Your task to perform on an android device: Open accessibility settings Image 0: 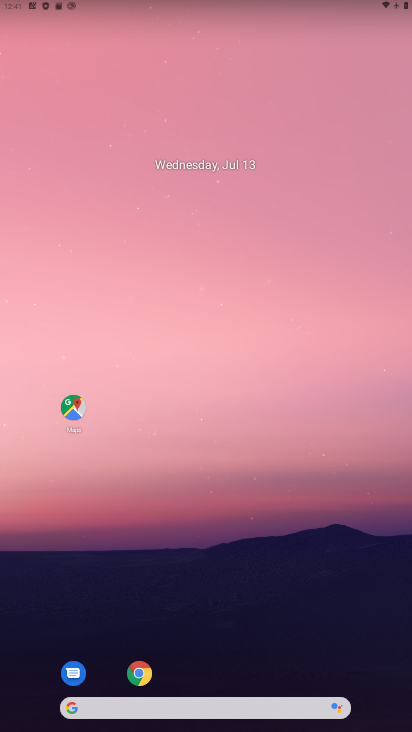
Step 0: drag from (257, 628) to (286, 148)
Your task to perform on an android device: Open accessibility settings Image 1: 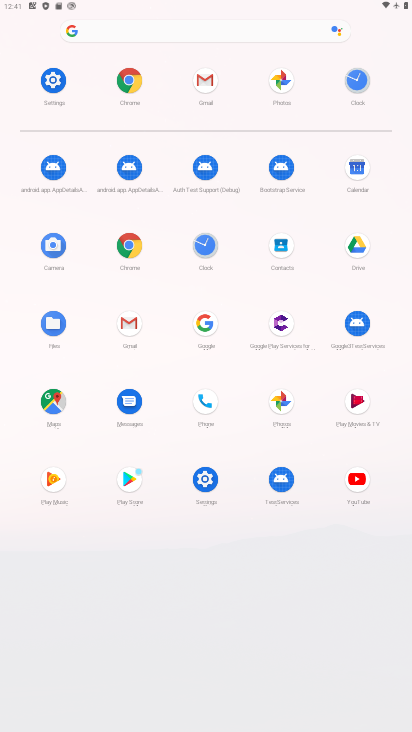
Step 1: click (49, 87)
Your task to perform on an android device: Open accessibility settings Image 2: 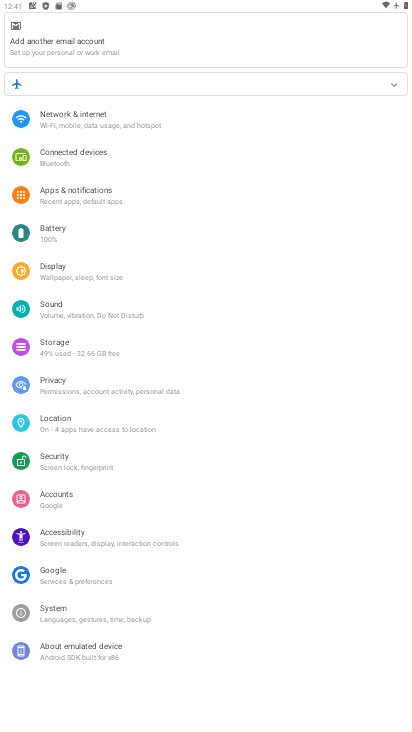
Step 2: click (155, 541)
Your task to perform on an android device: Open accessibility settings Image 3: 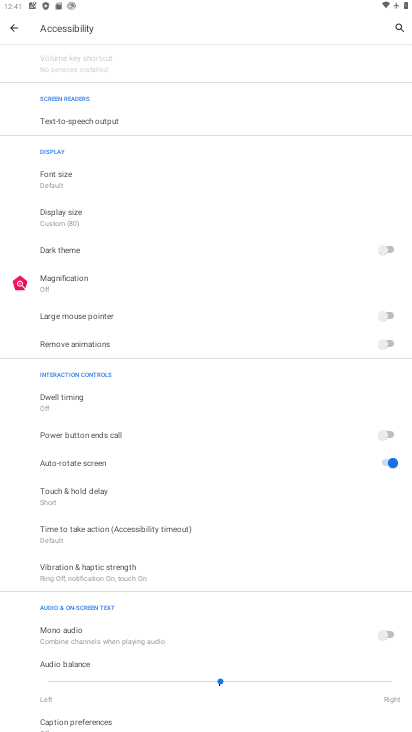
Step 3: task complete